Your task to perform on an android device: toggle pop-ups in chrome Image 0: 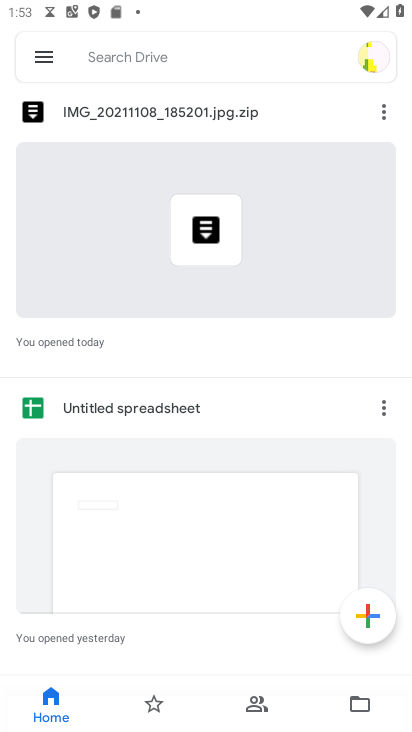
Step 0: press back button
Your task to perform on an android device: toggle pop-ups in chrome Image 1: 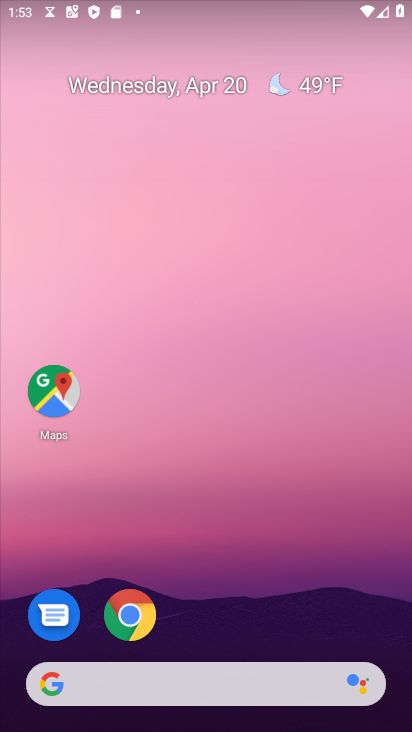
Step 1: click (139, 614)
Your task to perform on an android device: toggle pop-ups in chrome Image 2: 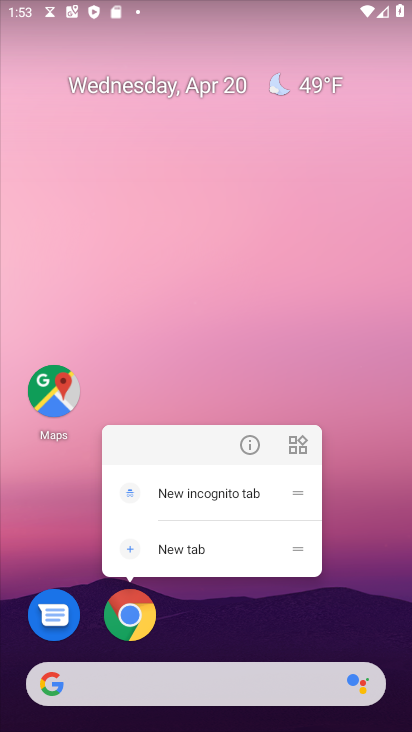
Step 2: click (137, 617)
Your task to perform on an android device: toggle pop-ups in chrome Image 3: 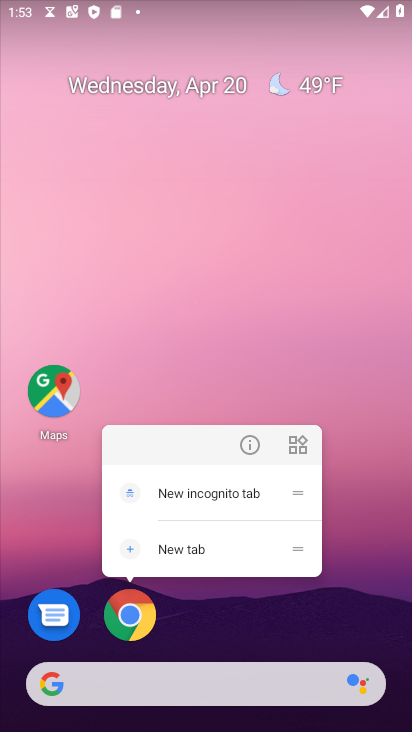
Step 3: click (133, 609)
Your task to perform on an android device: toggle pop-ups in chrome Image 4: 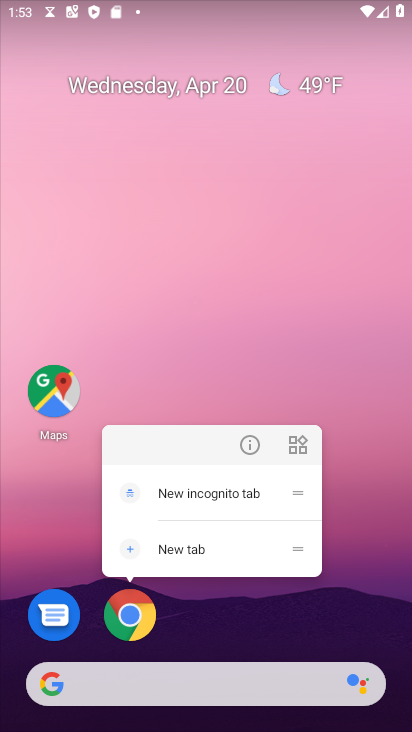
Step 4: click (130, 616)
Your task to perform on an android device: toggle pop-ups in chrome Image 5: 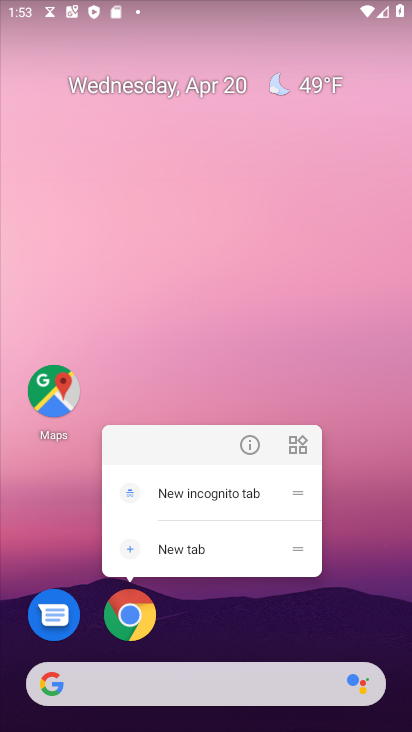
Step 5: click (137, 612)
Your task to perform on an android device: toggle pop-ups in chrome Image 6: 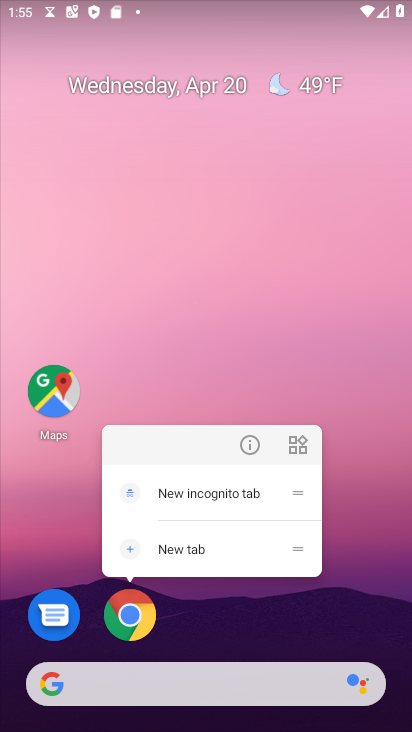
Step 6: click (134, 613)
Your task to perform on an android device: toggle pop-ups in chrome Image 7: 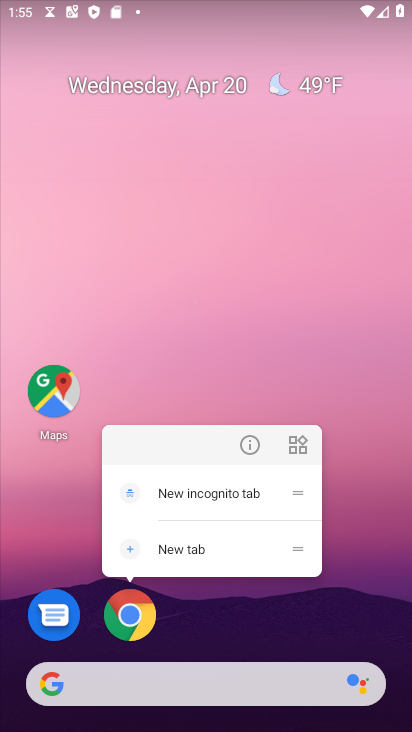
Step 7: click (127, 604)
Your task to perform on an android device: toggle pop-ups in chrome Image 8: 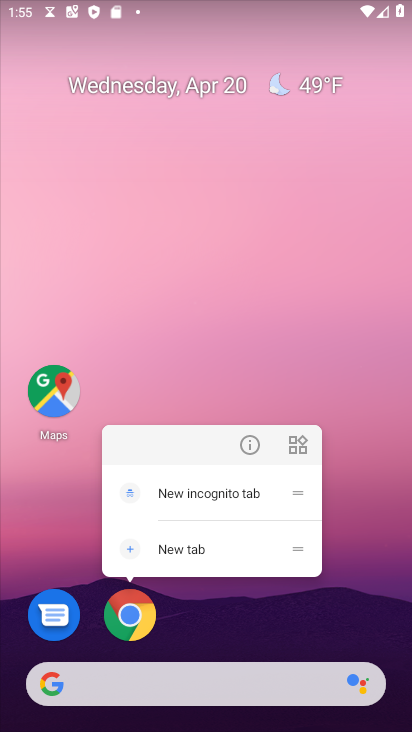
Step 8: click (132, 619)
Your task to perform on an android device: toggle pop-ups in chrome Image 9: 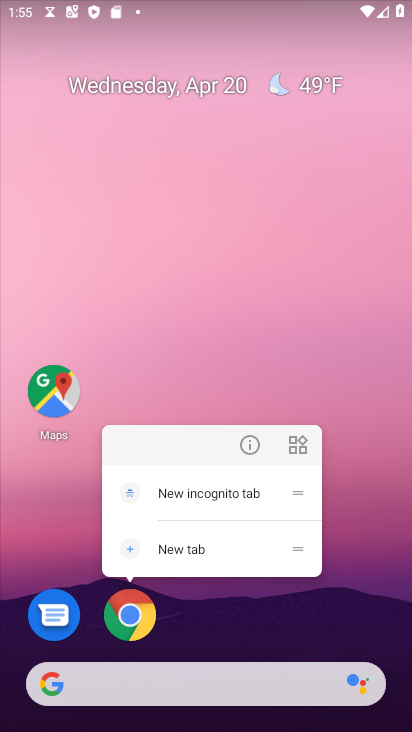
Step 9: click (136, 609)
Your task to perform on an android device: toggle pop-ups in chrome Image 10: 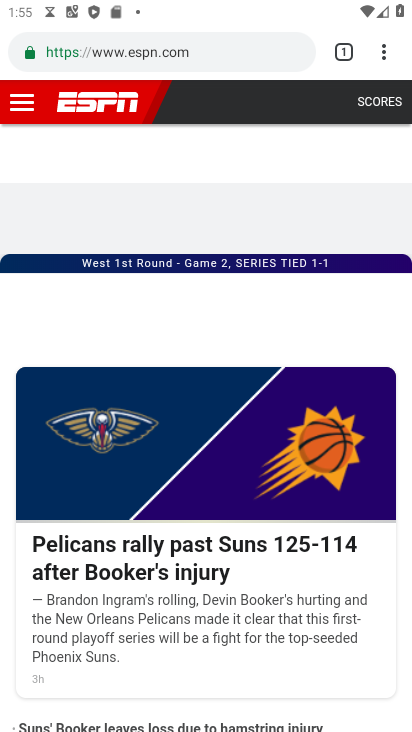
Step 10: click (375, 50)
Your task to perform on an android device: toggle pop-ups in chrome Image 11: 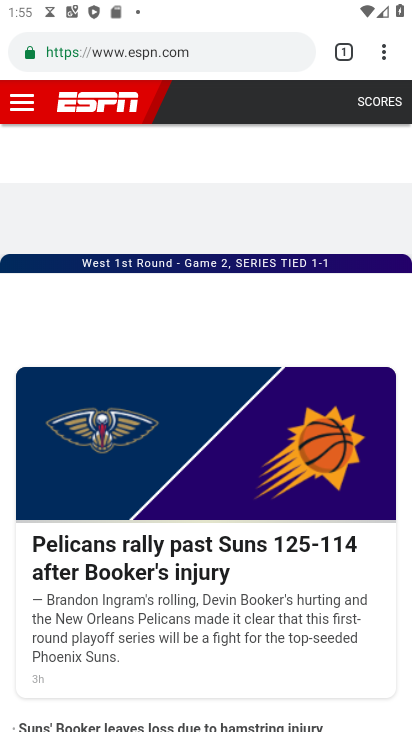
Step 11: click (382, 49)
Your task to perform on an android device: toggle pop-ups in chrome Image 12: 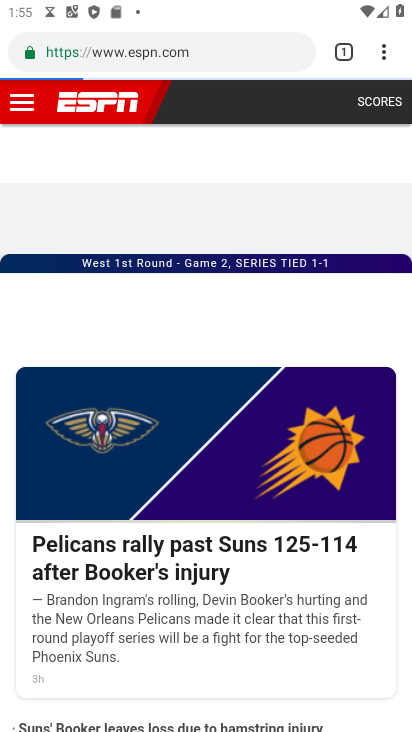
Step 12: click (382, 49)
Your task to perform on an android device: toggle pop-ups in chrome Image 13: 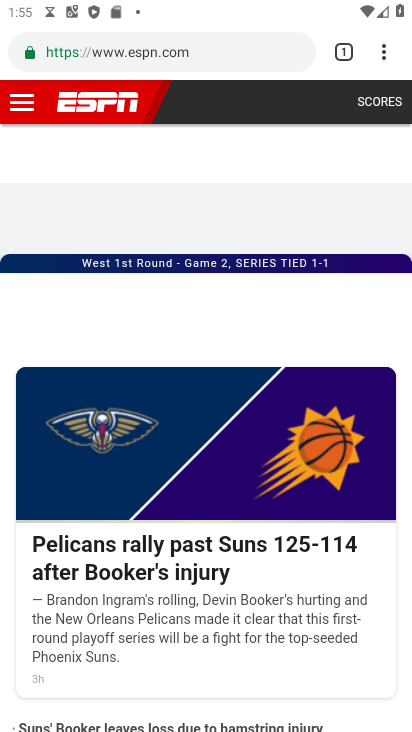
Step 13: click (383, 47)
Your task to perform on an android device: toggle pop-ups in chrome Image 14: 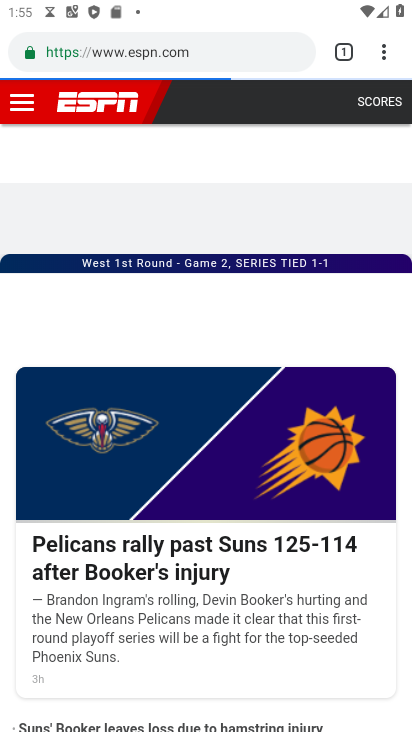
Step 14: click (383, 47)
Your task to perform on an android device: toggle pop-ups in chrome Image 15: 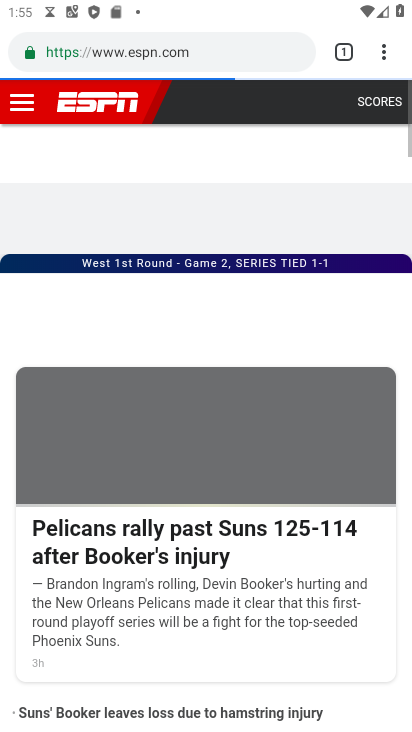
Step 15: click (383, 47)
Your task to perform on an android device: toggle pop-ups in chrome Image 16: 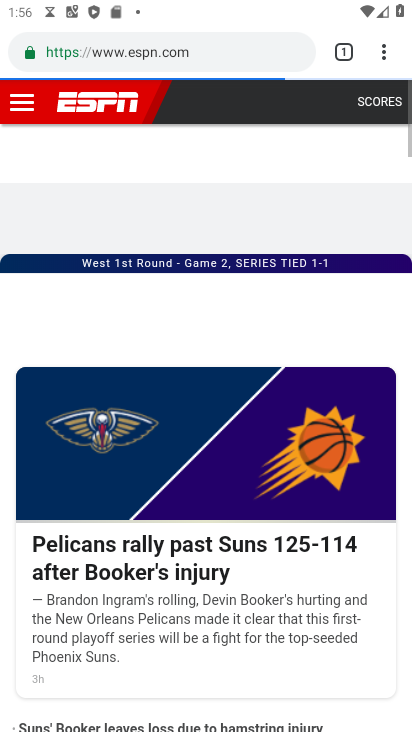
Step 16: click (383, 47)
Your task to perform on an android device: toggle pop-ups in chrome Image 17: 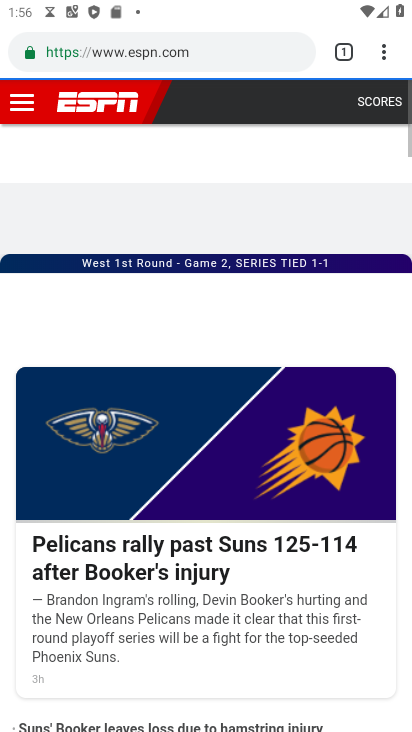
Step 17: click (383, 47)
Your task to perform on an android device: toggle pop-ups in chrome Image 18: 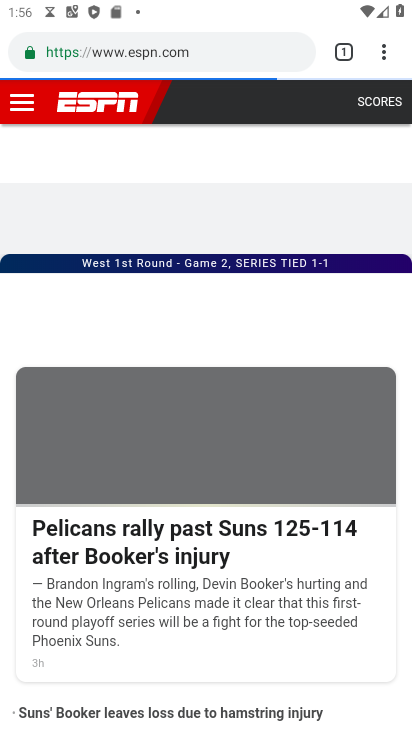
Step 18: click (383, 47)
Your task to perform on an android device: toggle pop-ups in chrome Image 19: 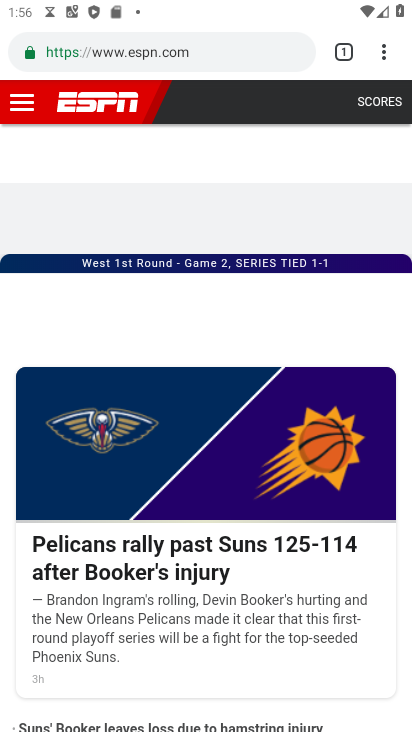
Step 19: click (381, 51)
Your task to perform on an android device: toggle pop-ups in chrome Image 20: 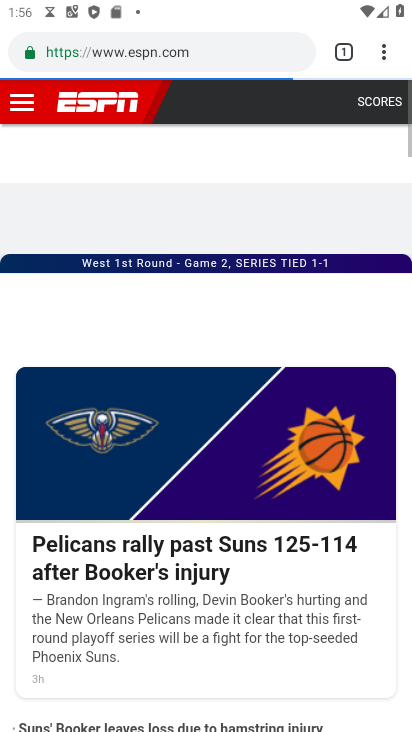
Step 20: click (382, 47)
Your task to perform on an android device: toggle pop-ups in chrome Image 21: 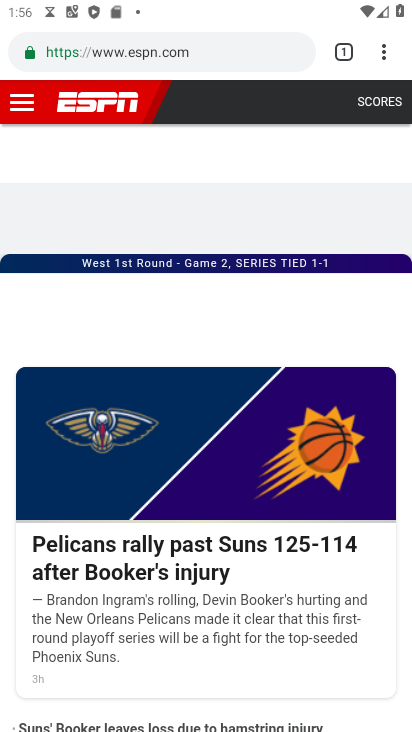
Step 21: click (376, 55)
Your task to perform on an android device: toggle pop-ups in chrome Image 22: 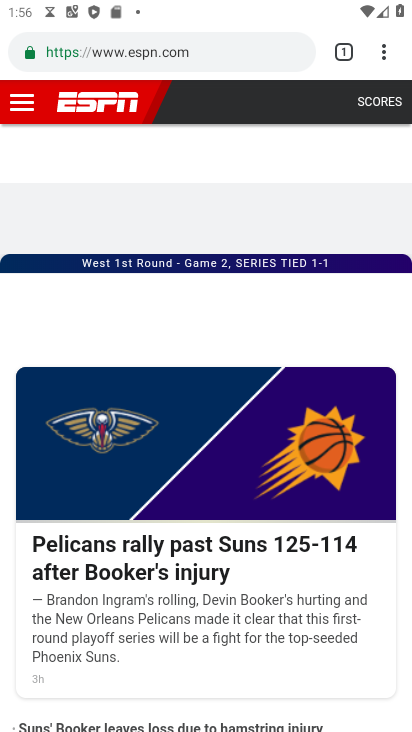
Step 22: click (379, 51)
Your task to perform on an android device: toggle pop-ups in chrome Image 23: 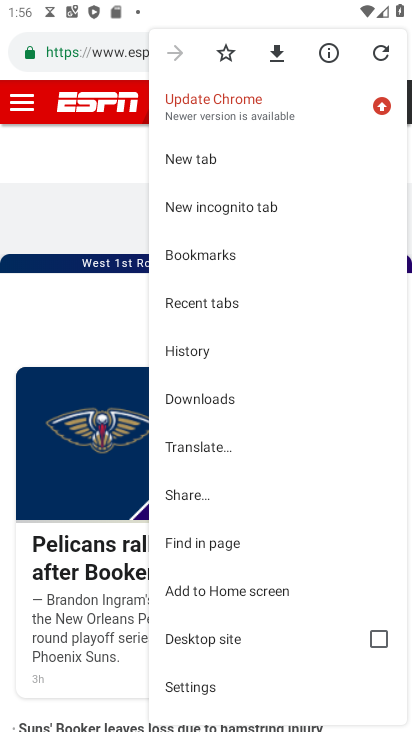
Step 23: click (192, 683)
Your task to perform on an android device: toggle pop-ups in chrome Image 24: 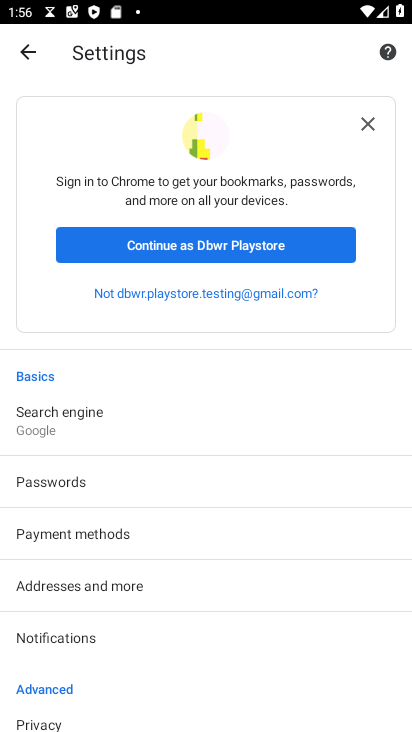
Step 24: drag from (316, 613) to (342, 362)
Your task to perform on an android device: toggle pop-ups in chrome Image 25: 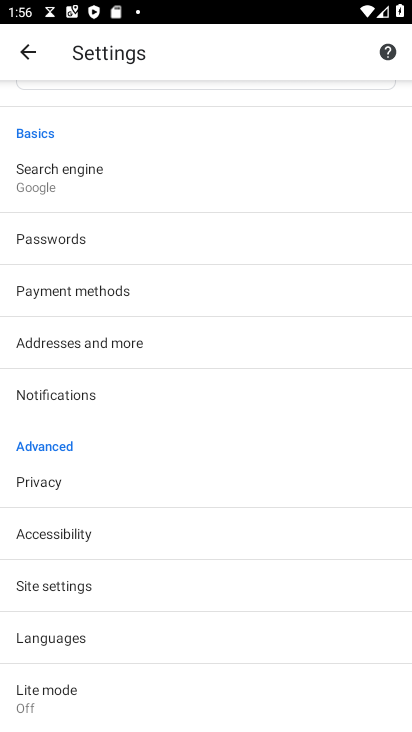
Step 25: click (89, 579)
Your task to perform on an android device: toggle pop-ups in chrome Image 26: 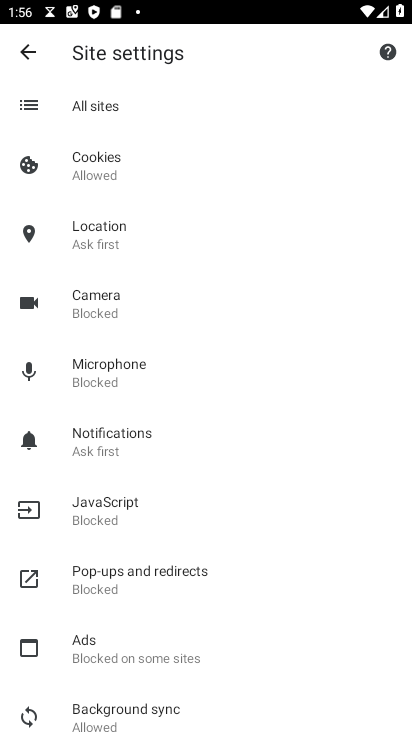
Step 26: click (167, 561)
Your task to perform on an android device: toggle pop-ups in chrome Image 27: 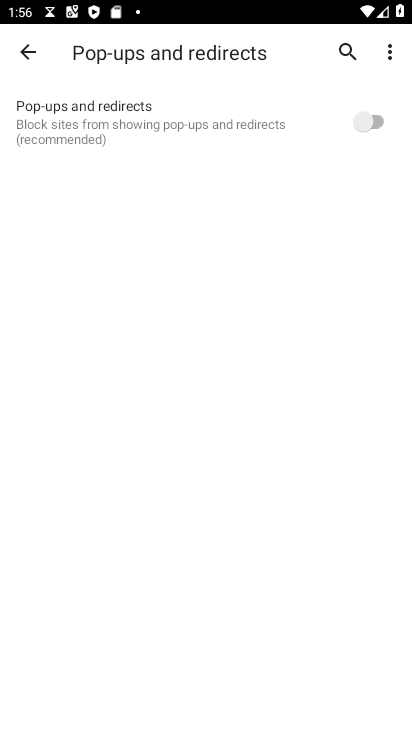
Step 27: click (357, 121)
Your task to perform on an android device: toggle pop-ups in chrome Image 28: 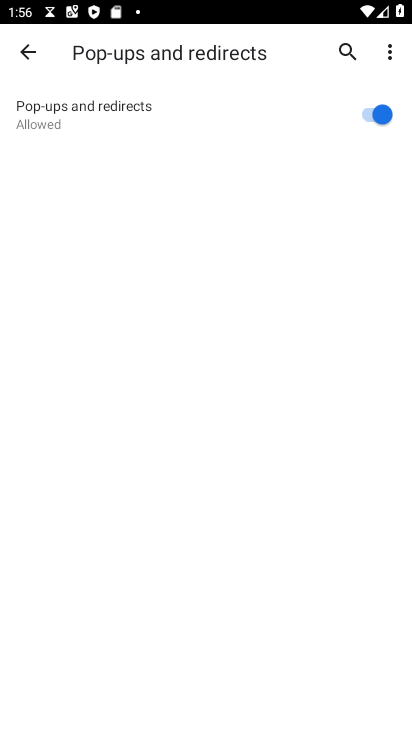
Step 28: task complete